Your task to perform on an android device: turn on improve location accuracy Image 0: 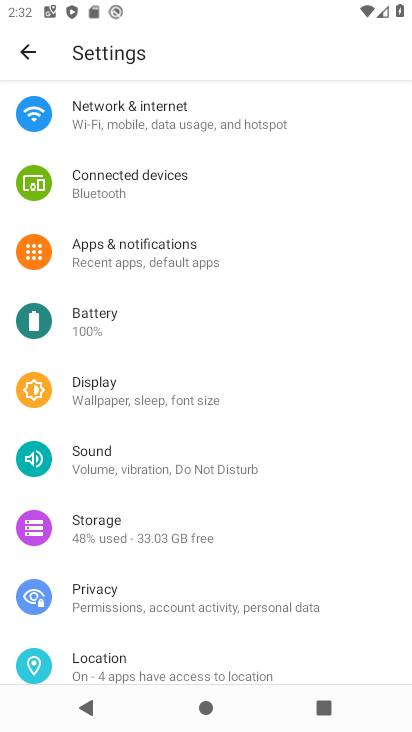
Step 0: click (128, 653)
Your task to perform on an android device: turn on improve location accuracy Image 1: 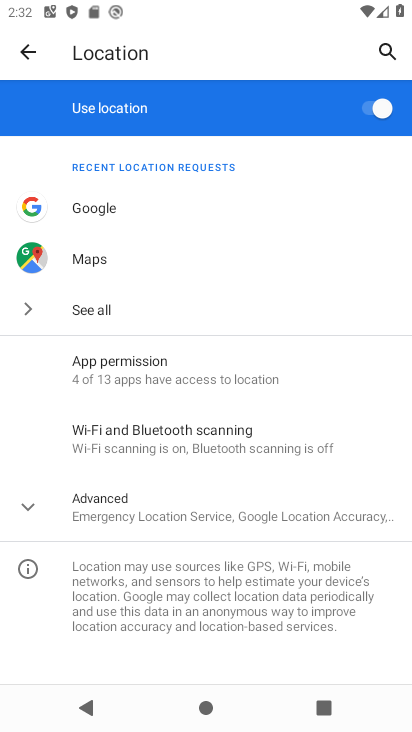
Step 1: click (179, 510)
Your task to perform on an android device: turn on improve location accuracy Image 2: 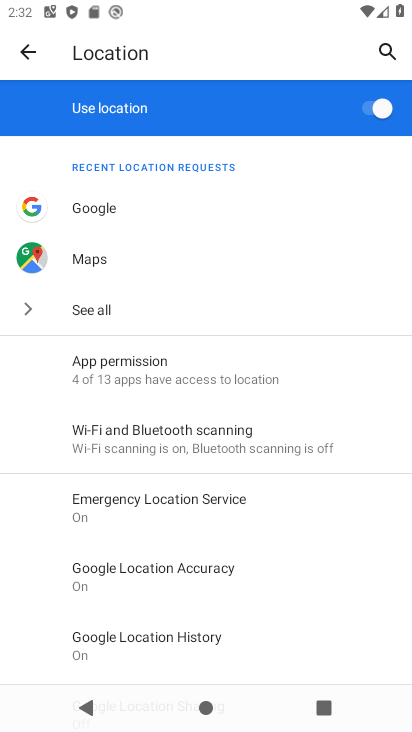
Step 2: click (136, 570)
Your task to perform on an android device: turn on improve location accuracy Image 3: 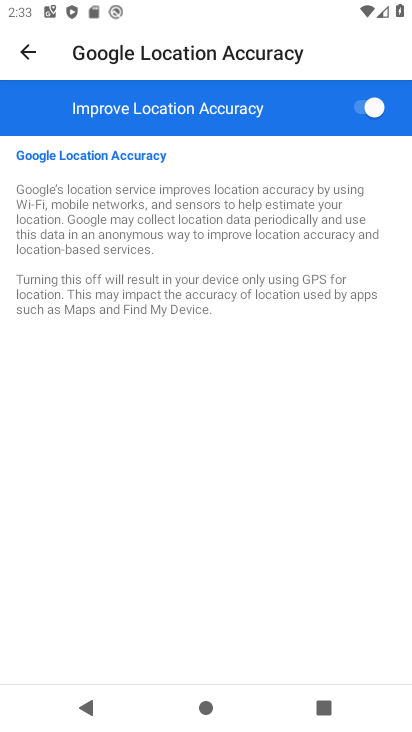
Step 3: task complete